Your task to perform on an android device: add a contact Image 0: 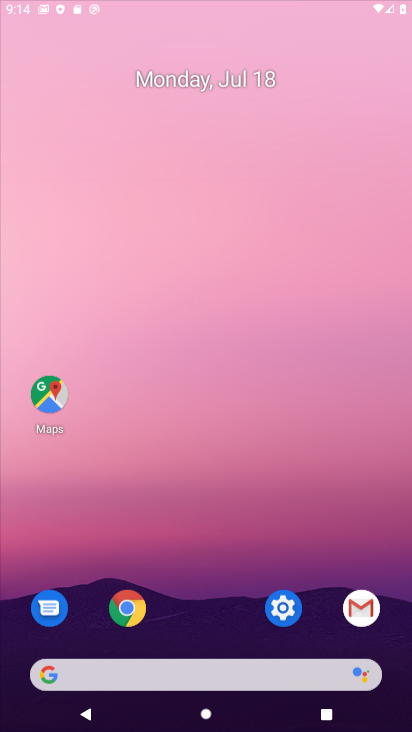
Step 0: press home button
Your task to perform on an android device: add a contact Image 1: 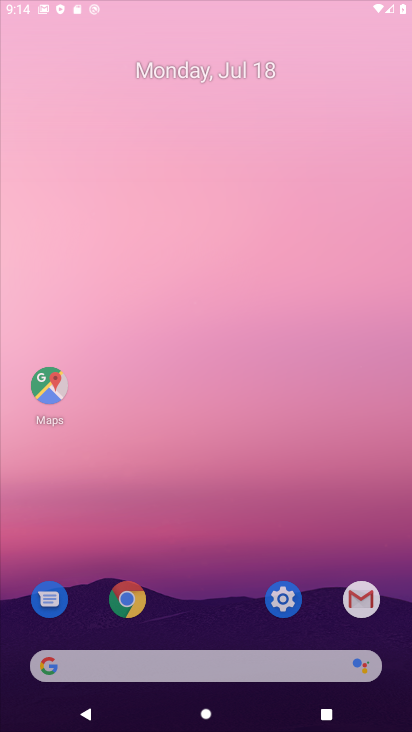
Step 1: click (277, 615)
Your task to perform on an android device: add a contact Image 2: 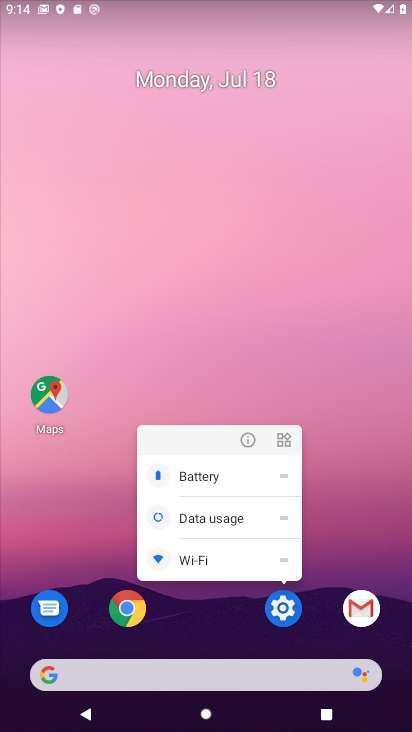
Step 2: click (333, 372)
Your task to perform on an android device: add a contact Image 3: 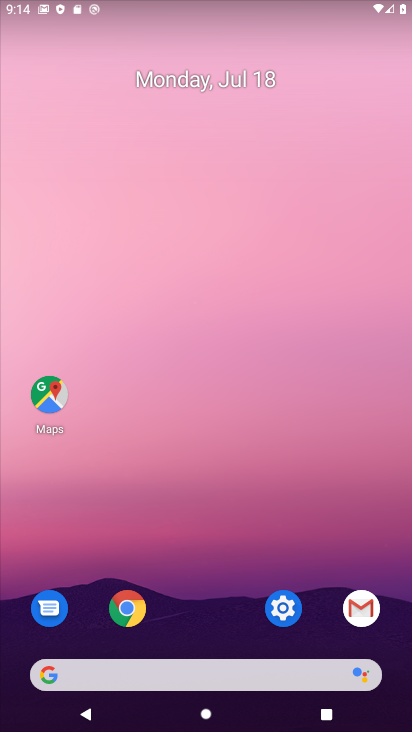
Step 3: drag from (160, 694) to (333, 147)
Your task to perform on an android device: add a contact Image 4: 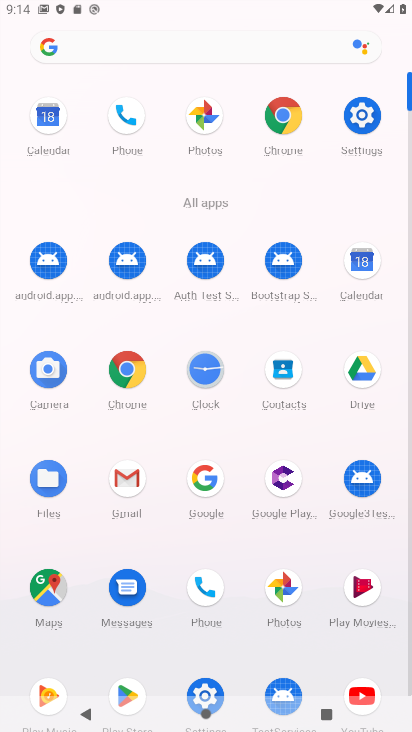
Step 4: click (207, 575)
Your task to perform on an android device: add a contact Image 5: 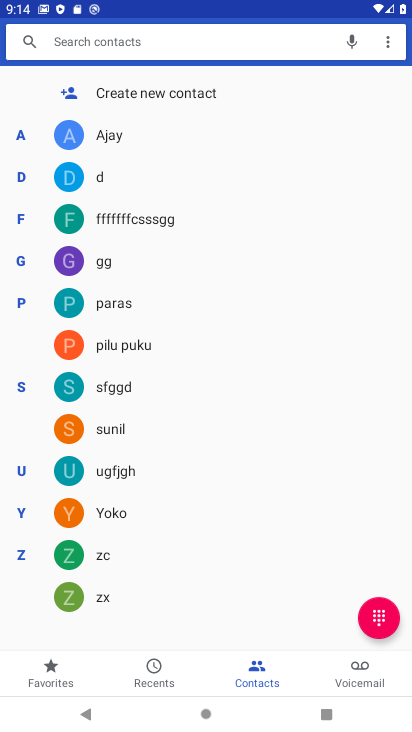
Step 5: click (202, 87)
Your task to perform on an android device: add a contact Image 6: 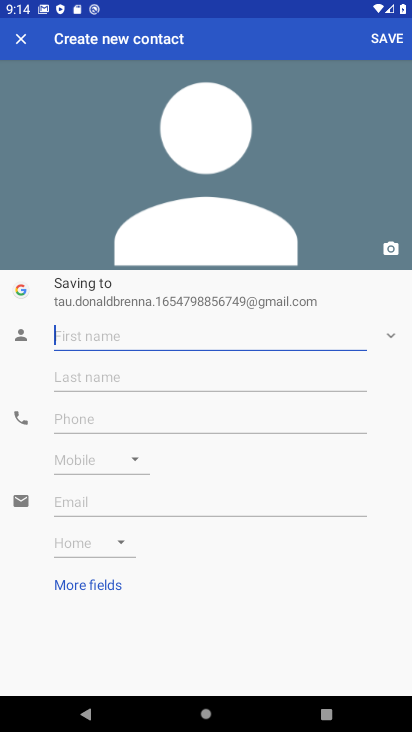
Step 6: click (150, 331)
Your task to perform on an android device: add a contact Image 7: 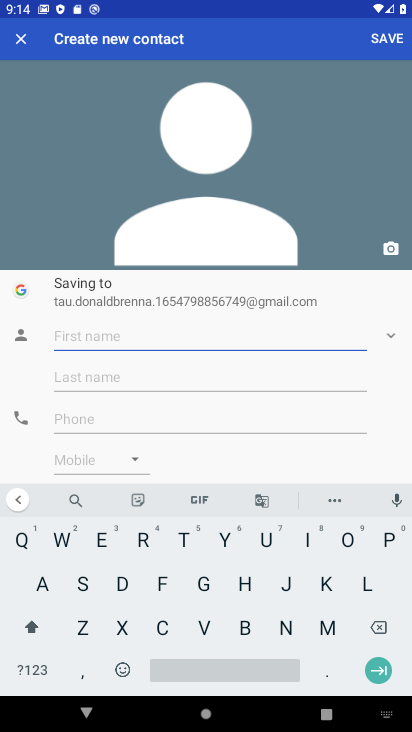
Step 7: click (122, 583)
Your task to perform on an android device: add a contact Image 8: 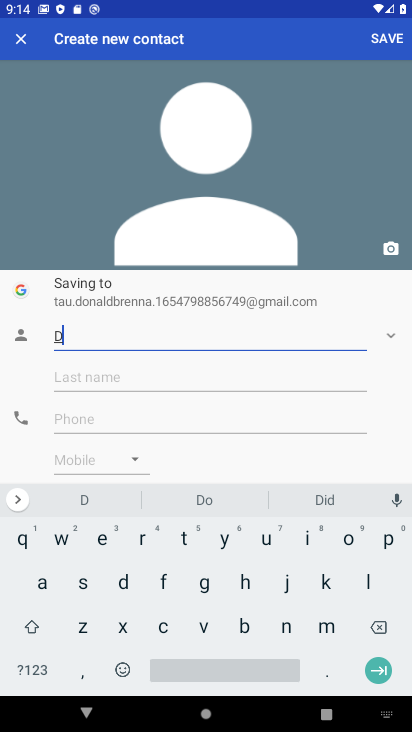
Step 8: click (154, 577)
Your task to perform on an android device: add a contact Image 9: 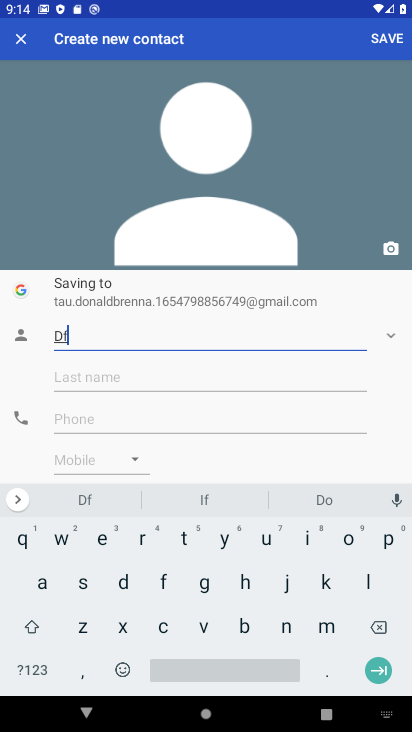
Step 9: click (95, 422)
Your task to perform on an android device: add a contact Image 10: 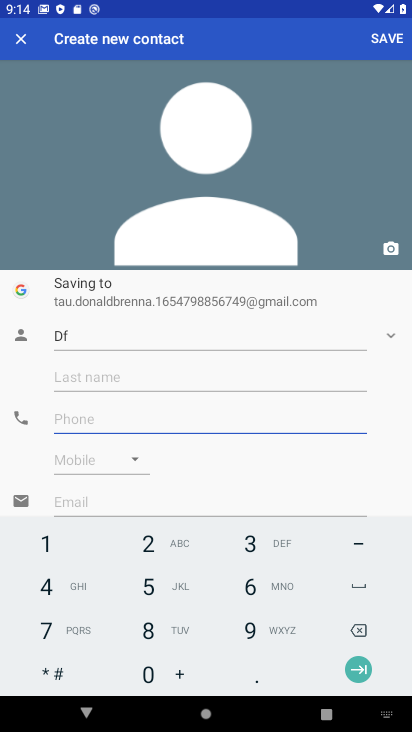
Step 10: click (243, 584)
Your task to perform on an android device: add a contact Image 11: 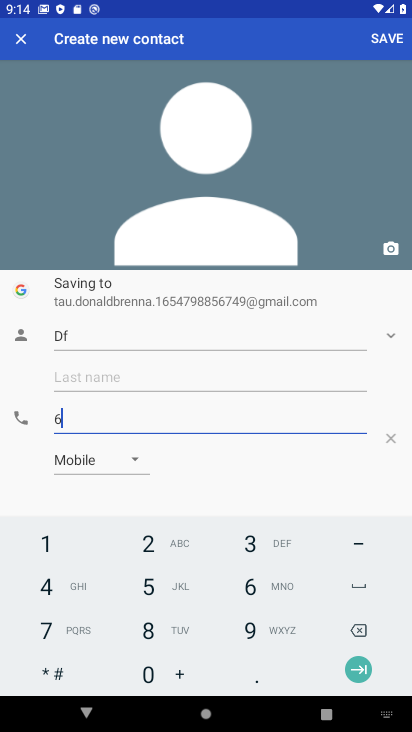
Step 11: click (210, 618)
Your task to perform on an android device: add a contact Image 12: 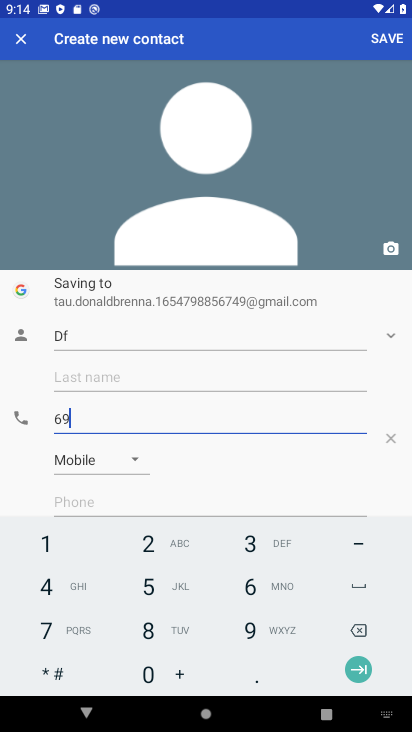
Step 12: click (87, 649)
Your task to perform on an android device: add a contact Image 13: 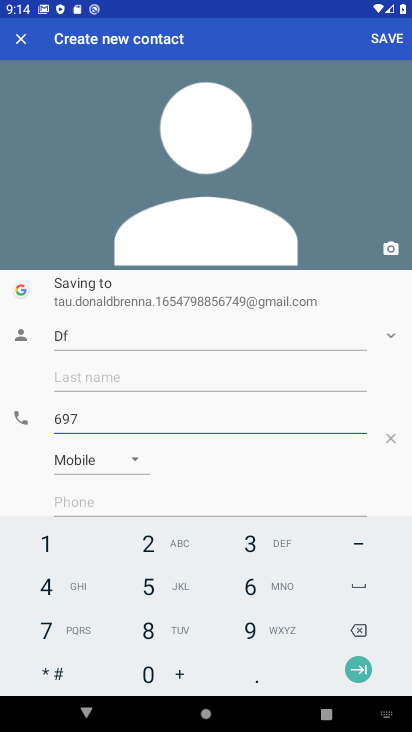
Step 13: click (74, 592)
Your task to perform on an android device: add a contact Image 14: 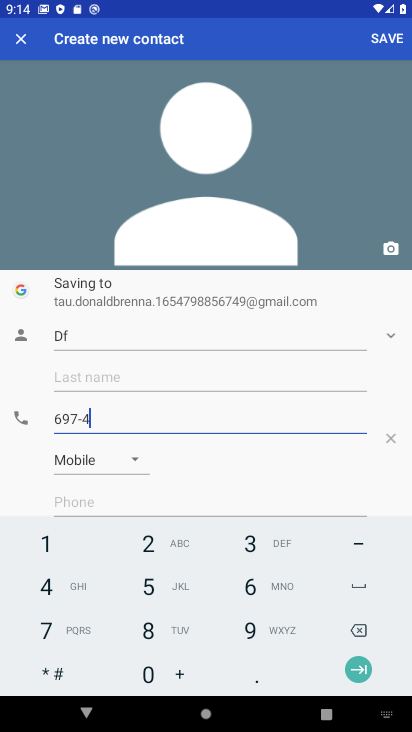
Step 14: click (164, 558)
Your task to perform on an android device: add a contact Image 15: 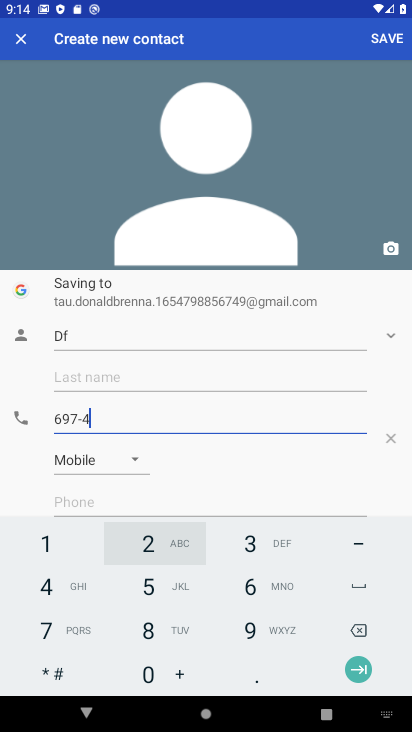
Step 15: click (167, 586)
Your task to perform on an android device: add a contact Image 16: 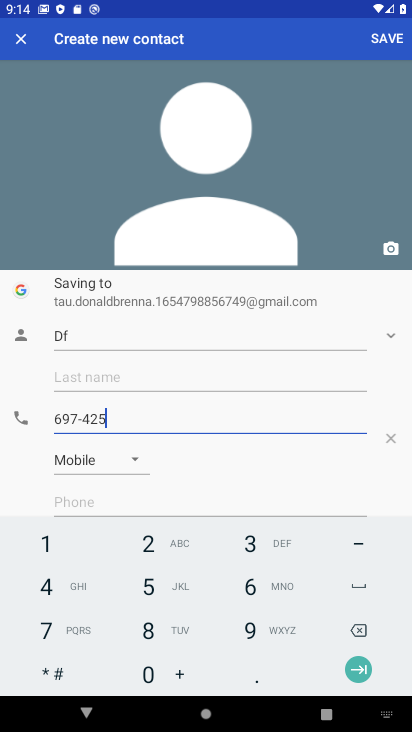
Step 16: click (395, 34)
Your task to perform on an android device: add a contact Image 17: 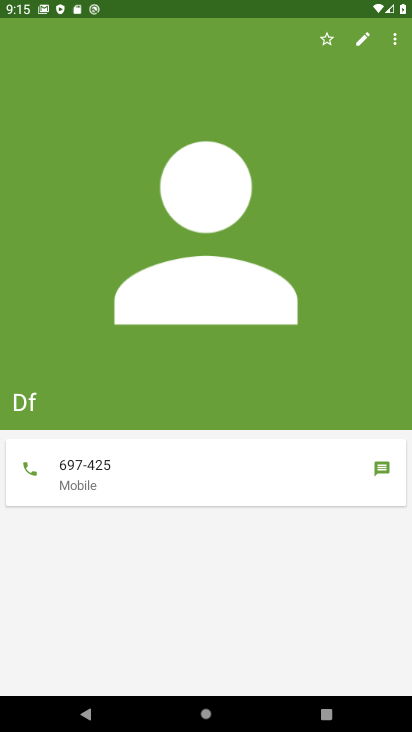
Step 17: task complete